Your task to perform on an android device: empty trash in google photos Image 0: 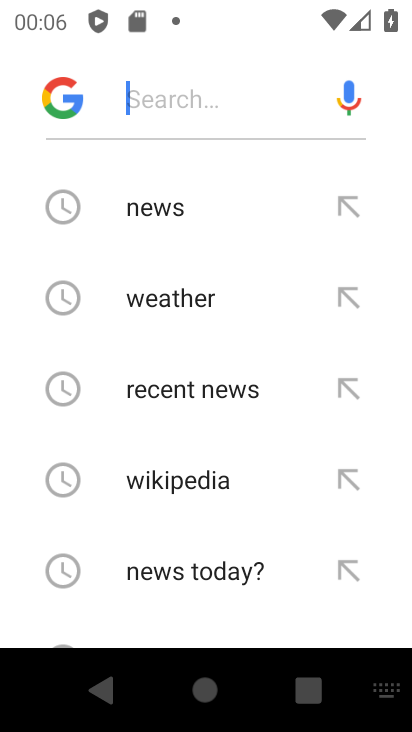
Step 0: press back button
Your task to perform on an android device: empty trash in google photos Image 1: 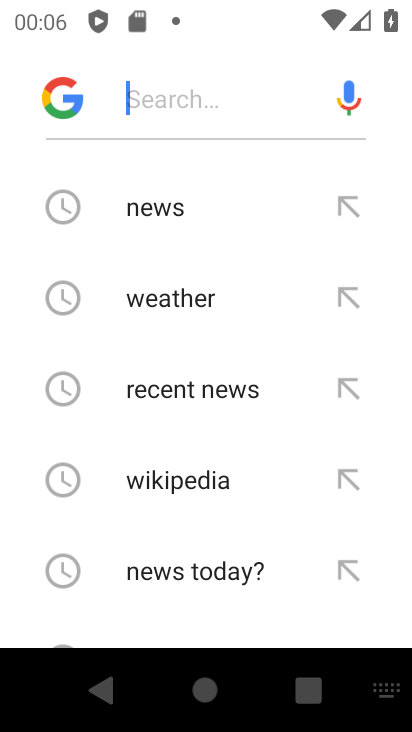
Step 1: press back button
Your task to perform on an android device: empty trash in google photos Image 2: 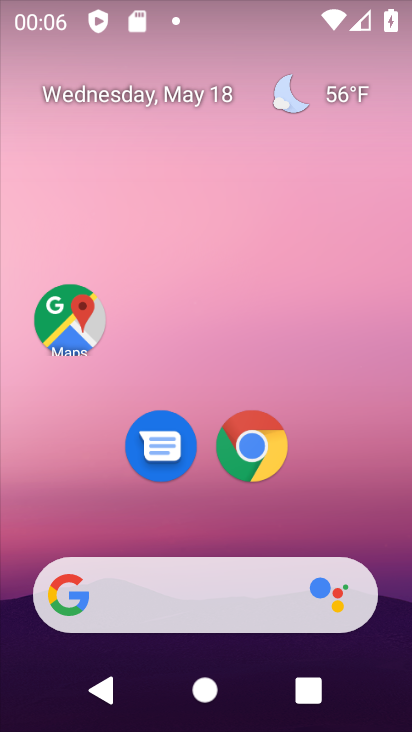
Step 2: drag from (357, 602) to (211, 166)
Your task to perform on an android device: empty trash in google photos Image 3: 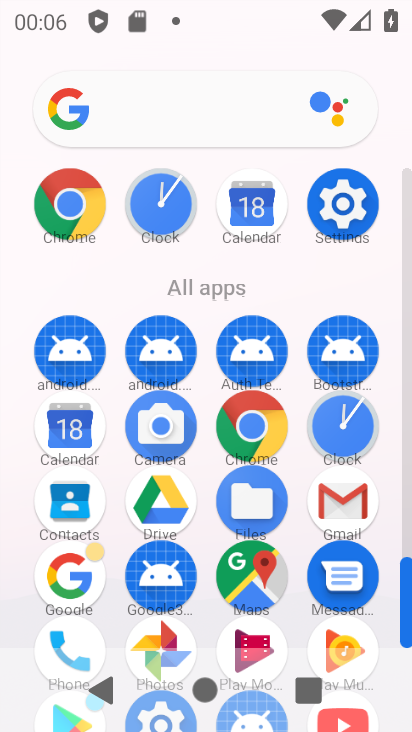
Step 3: drag from (214, 461) to (255, 131)
Your task to perform on an android device: empty trash in google photos Image 4: 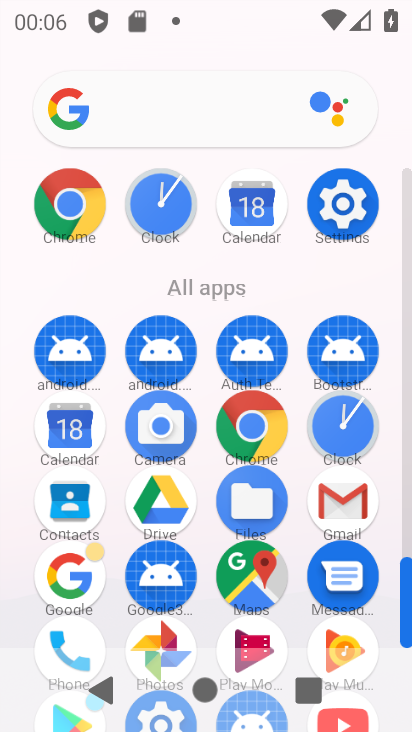
Step 4: drag from (225, 416) to (339, 161)
Your task to perform on an android device: empty trash in google photos Image 5: 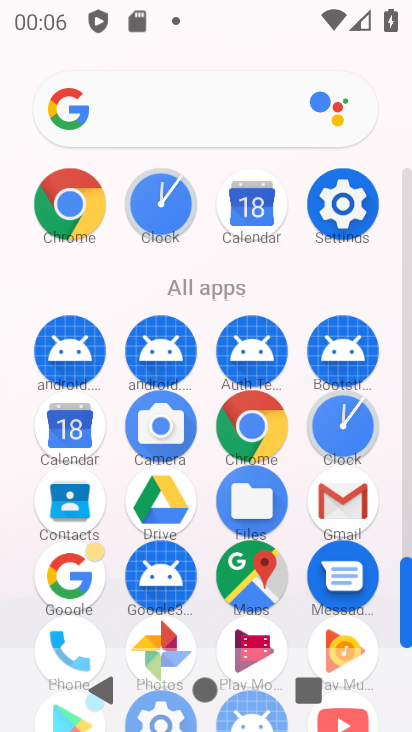
Step 5: drag from (335, 506) to (291, 192)
Your task to perform on an android device: empty trash in google photos Image 6: 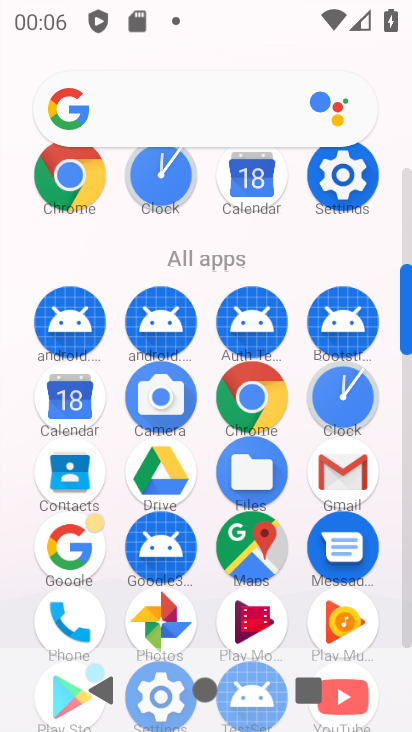
Step 6: drag from (230, 501) to (229, 154)
Your task to perform on an android device: empty trash in google photos Image 7: 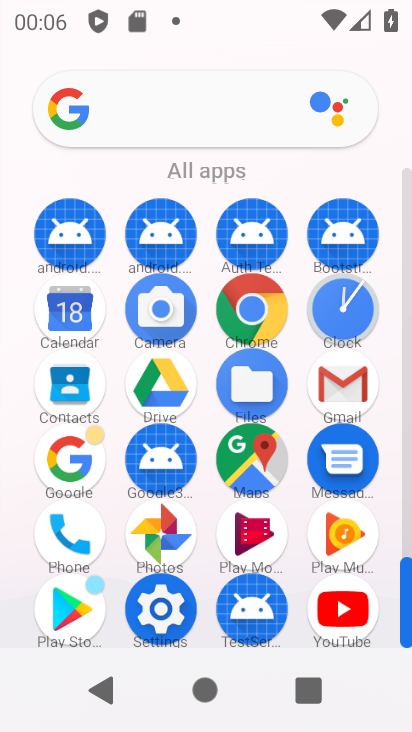
Step 7: click (162, 536)
Your task to perform on an android device: empty trash in google photos Image 8: 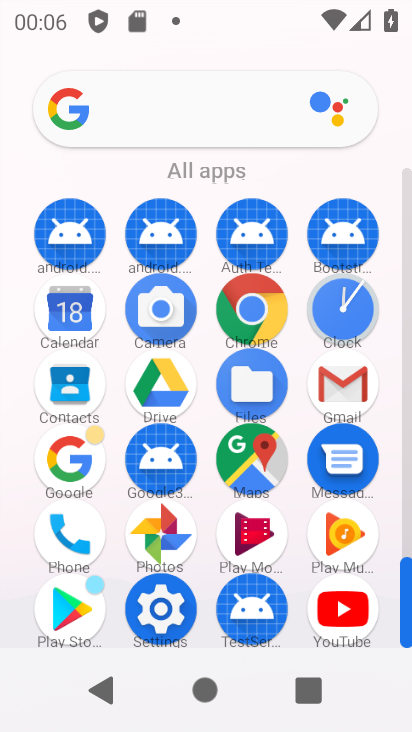
Step 8: click (168, 532)
Your task to perform on an android device: empty trash in google photos Image 9: 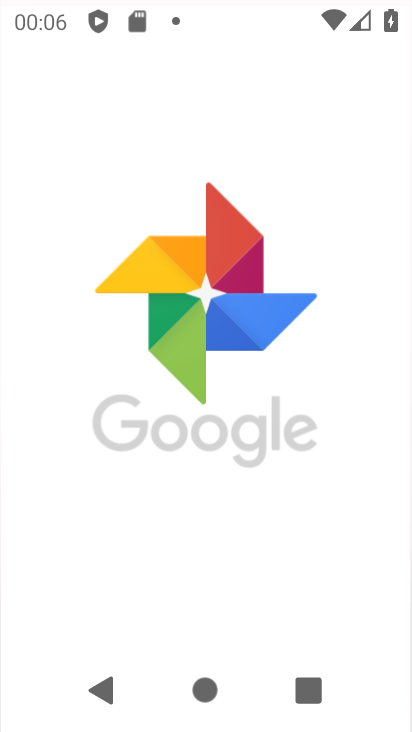
Step 9: click (168, 522)
Your task to perform on an android device: empty trash in google photos Image 10: 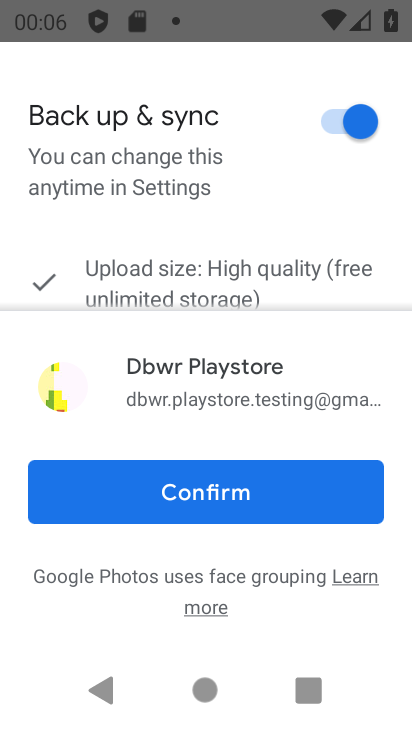
Step 10: click (223, 494)
Your task to perform on an android device: empty trash in google photos Image 11: 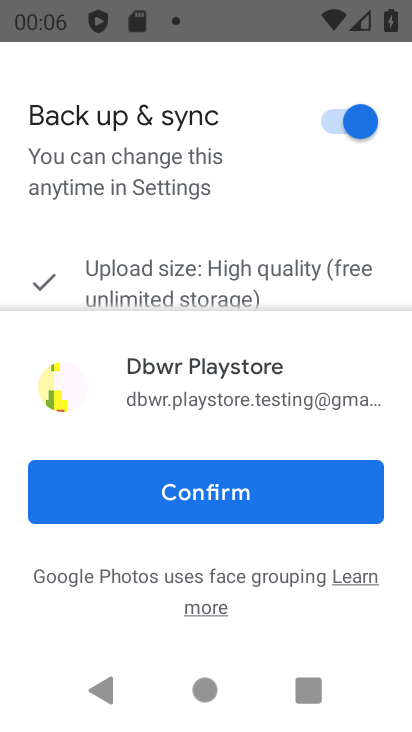
Step 11: click (223, 492)
Your task to perform on an android device: empty trash in google photos Image 12: 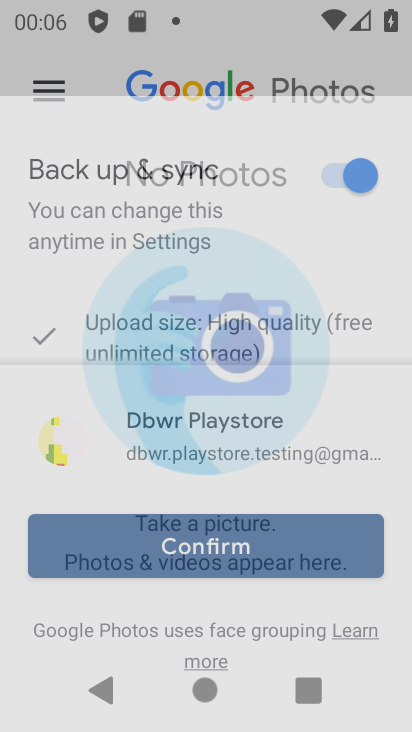
Step 12: click (223, 492)
Your task to perform on an android device: empty trash in google photos Image 13: 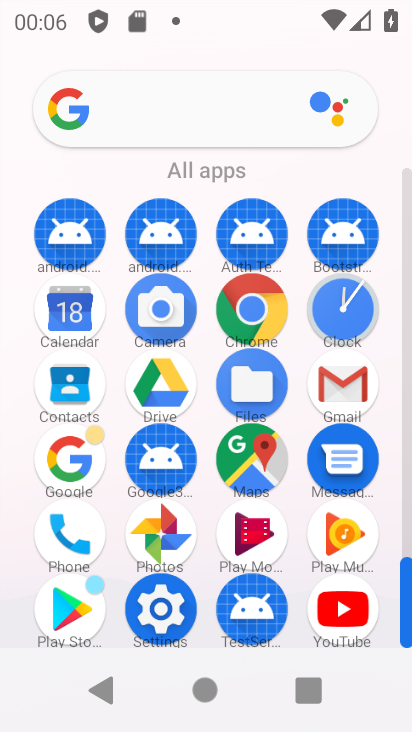
Step 13: click (216, 485)
Your task to perform on an android device: empty trash in google photos Image 14: 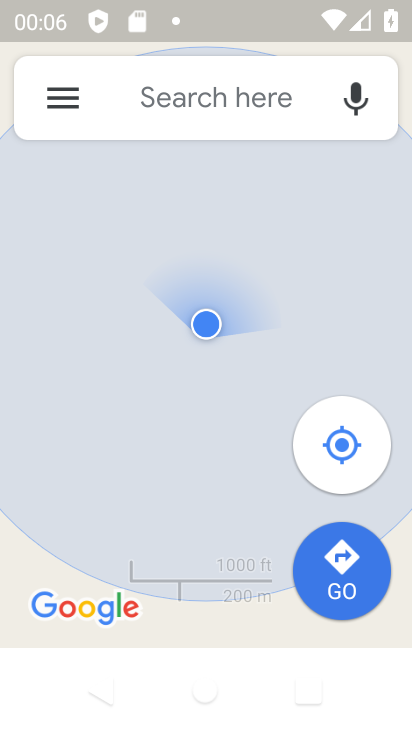
Step 14: press back button
Your task to perform on an android device: empty trash in google photos Image 15: 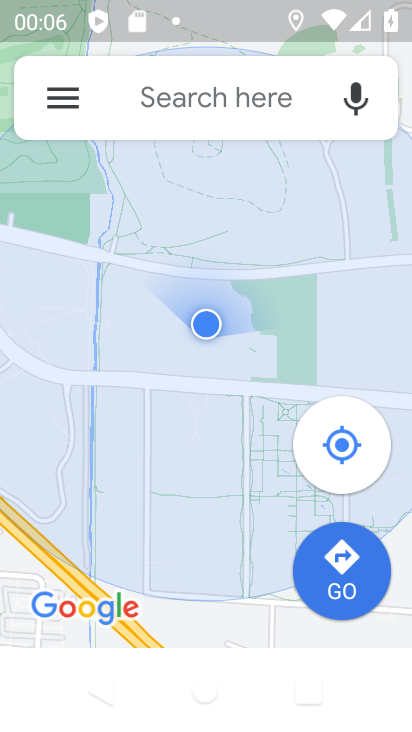
Step 15: press back button
Your task to perform on an android device: empty trash in google photos Image 16: 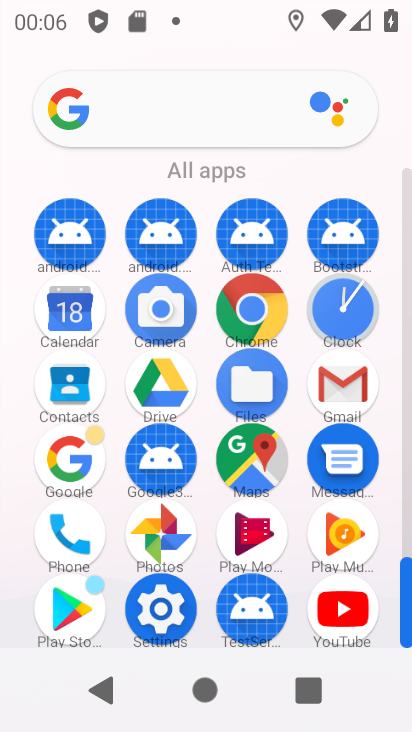
Step 16: press back button
Your task to perform on an android device: empty trash in google photos Image 17: 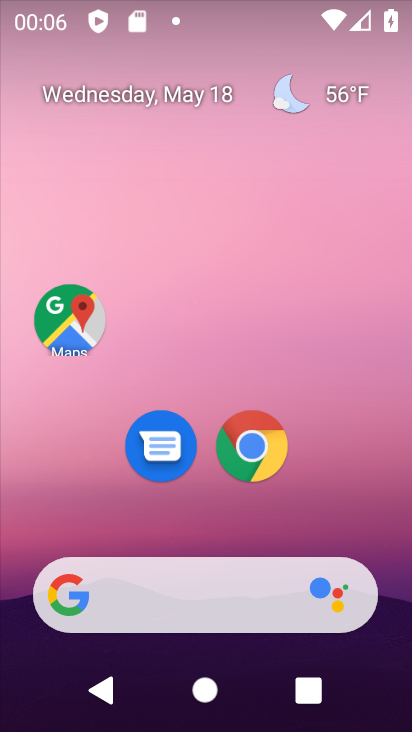
Step 17: drag from (329, 634) to (231, 76)
Your task to perform on an android device: empty trash in google photos Image 18: 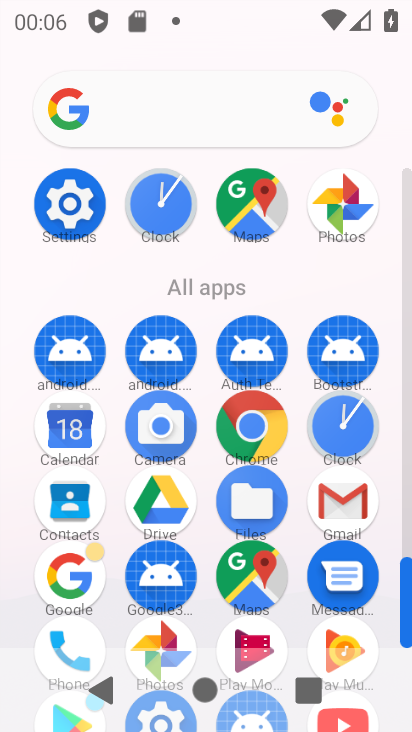
Step 18: drag from (192, 589) to (251, 112)
Your task to perform on an android device: empty trash in google photos Image 19: 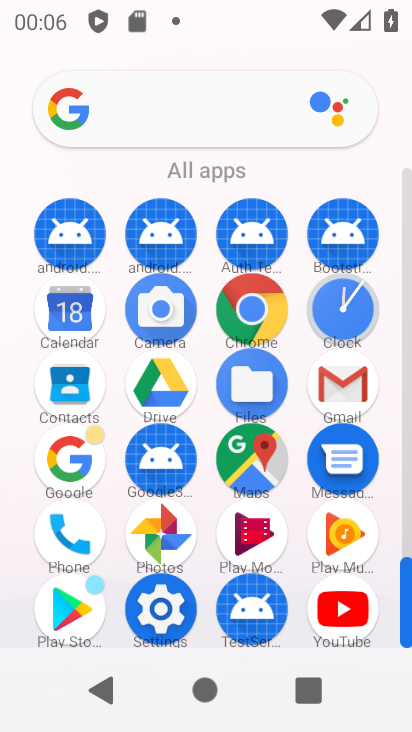
Step 19: click (160, 525)
Your task to perform on an android device: empty trash in google photos Image 20: 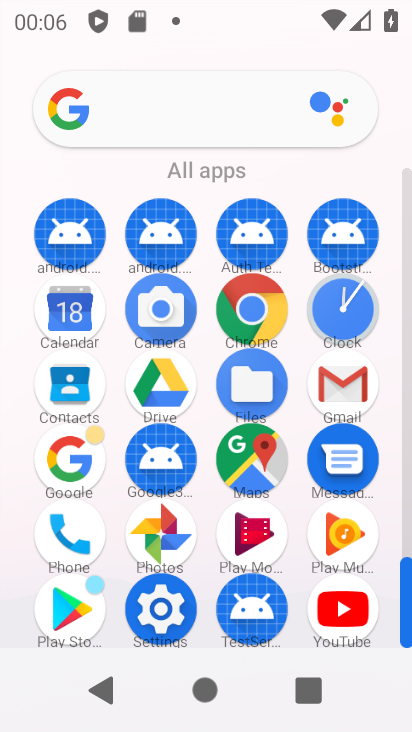
Step 20: click (160, 525)
Your task to perform on an android device: empty trash in google photos Image 21: 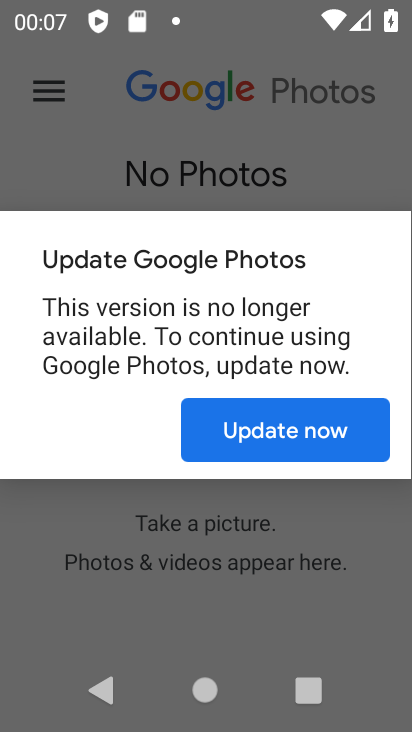
Step 21: click (297, 428)
Your task to perform on an android device: empty trash in google photos Image 22: 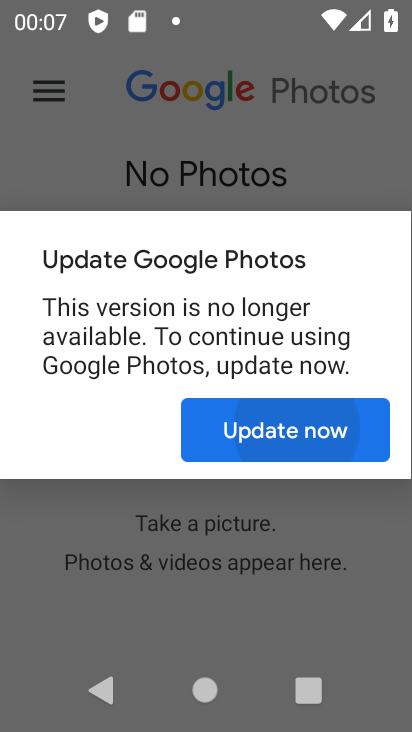
Step 22: click (297, 428)
Your task to perform on an android device: empty trash in google photos Image 23: 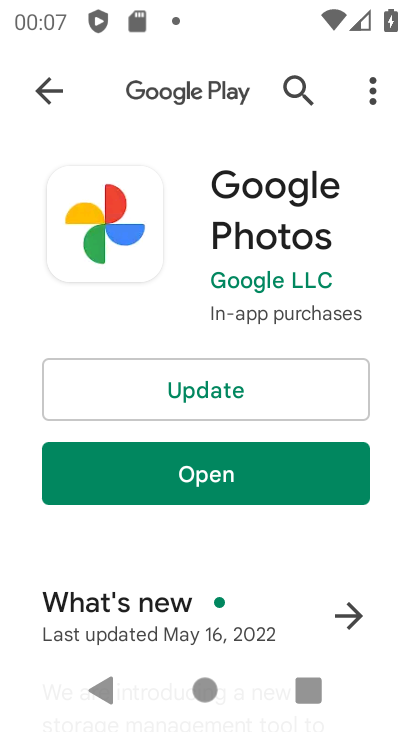
Step 23: click (239, 468)
Your task to perform on an android device: empty trash in google photos Image 24: 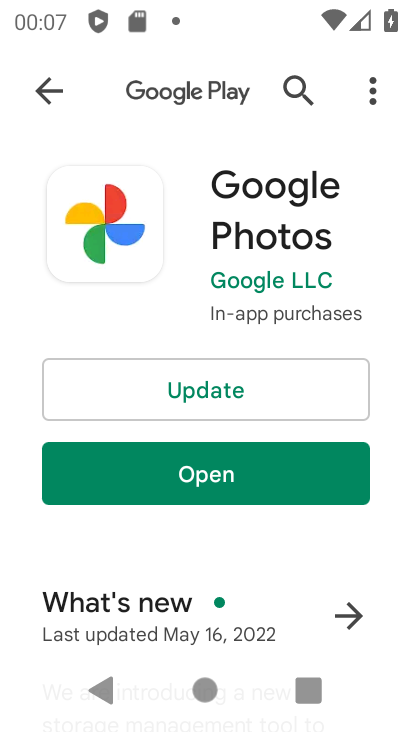
Step 24: click (239, 468)
Your task to perform on an android device: empty trash in google photos Image 25: 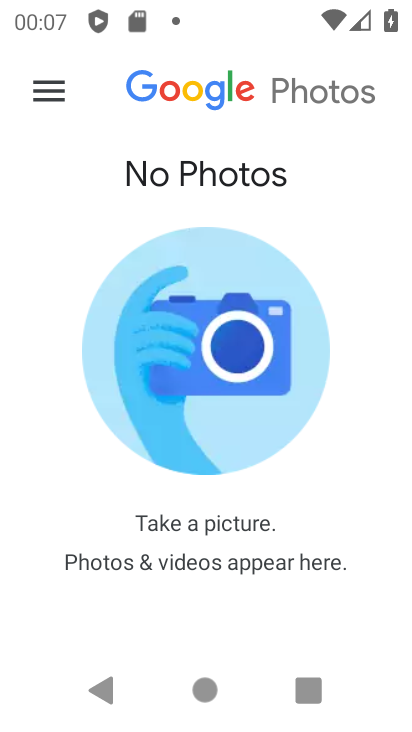
Step 25: task complete